Your task to perform on an android device: Open the map Image 0: 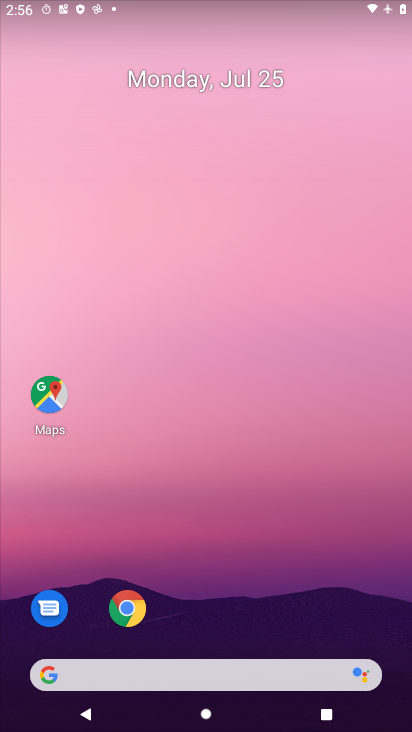
Step 0: drag from (180, 623) to (178, 167)
Your task to perform on an android device: Open the map Image 1: 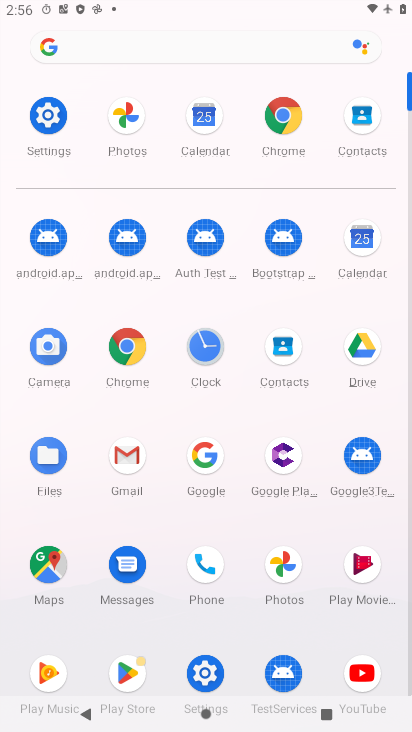
Step 1: click (50, 564)
Your task to perform on an android device: Open the map Image 2: 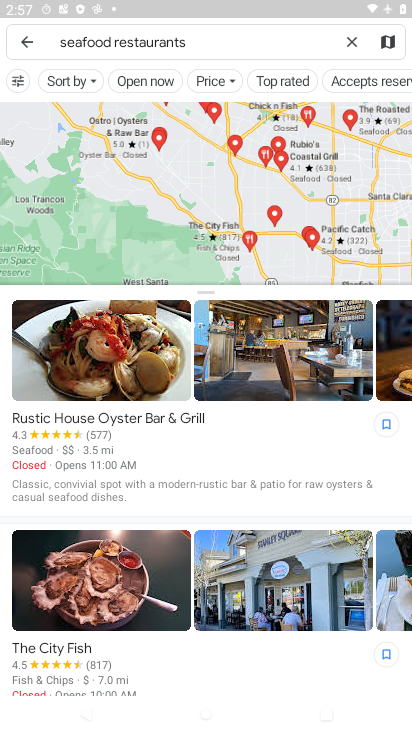
Step 2: task complete